Your task to perform on an android device: Play the last video I watched on Youtube Image 0: 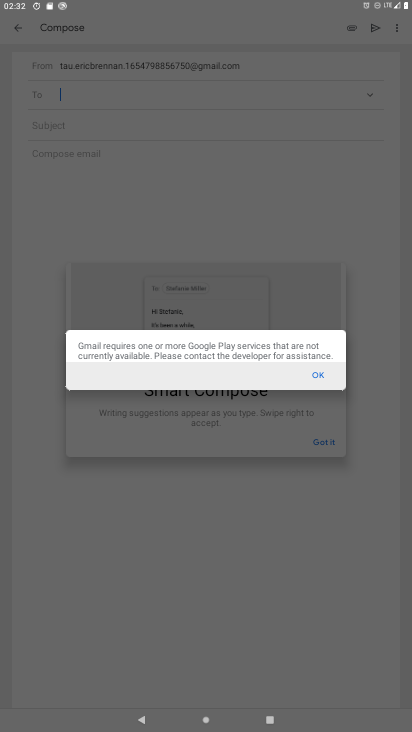
Step 0: press home button
Your task to perform on an android device: Play the last video I watched on Youtube Image 1: 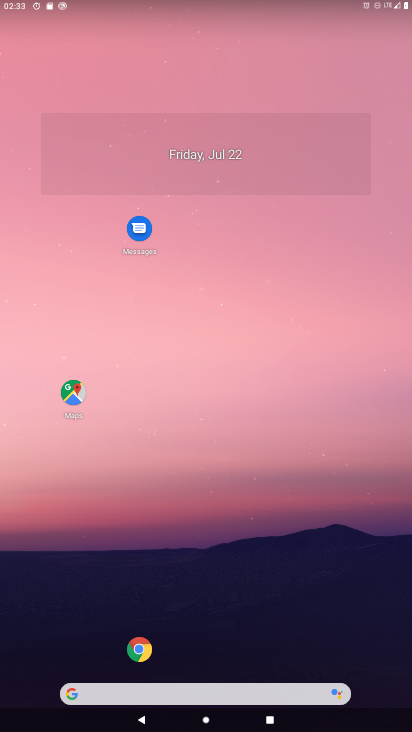
Step 1: drag from (38, 689) to (279, 119)
Your task to perform on an android device: Play the last video I watched on Youtube Image 2: 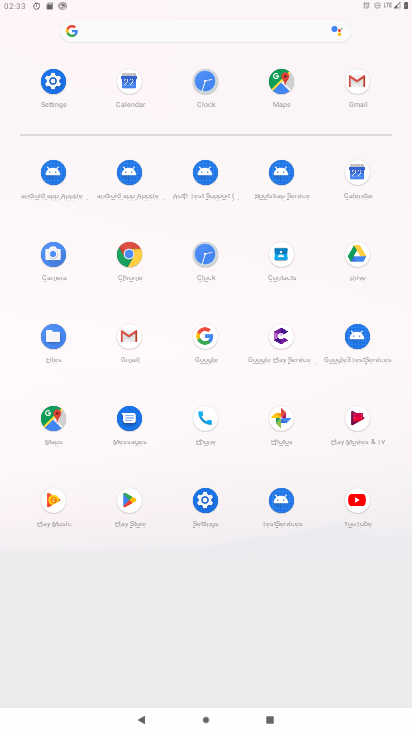
Step 2: click (357, 506)
Your task to perform on an android device: Play the last video I watched on Youtube Image 3: 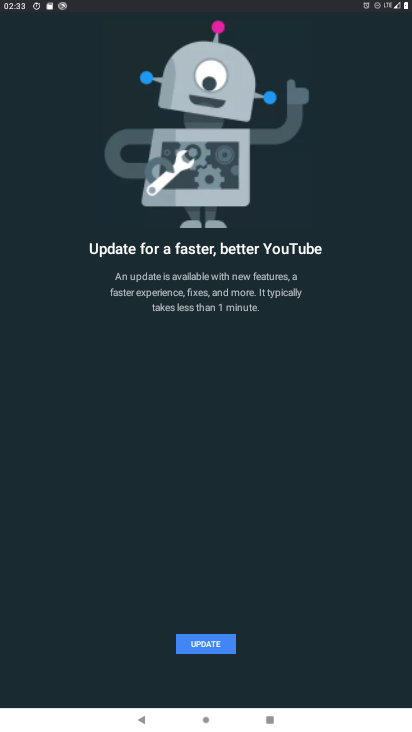
Step 3: task complete